Your task to perform on an android device: add a contact in the contacts app Image 0: 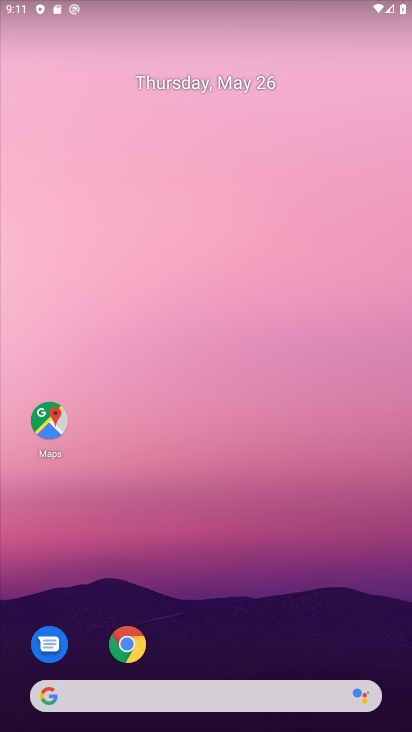
Step 0: drag from (217, 637) to (284, 317)
Your task to perform on an android device: add a contact in the contacts app Image 1: 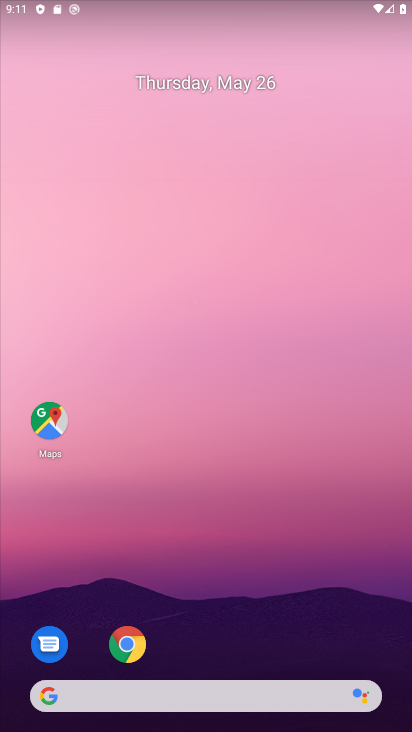
Step 1: drag from (206, 593) to (245, 287)
Your task to perform on an android device: add a contact in the contacts app Image 2: 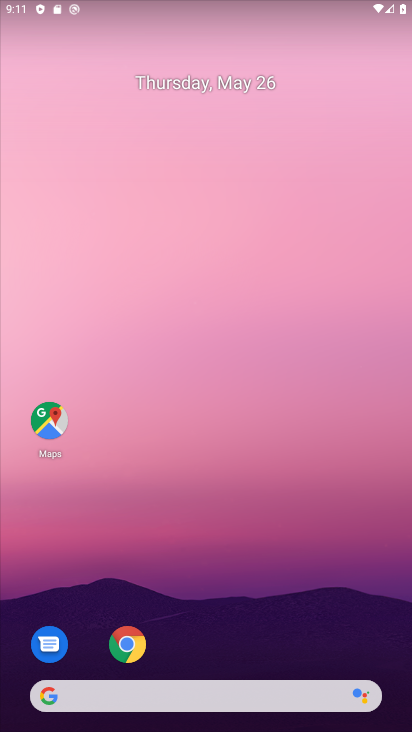
Step 2: drag from (173, 573) to (227, 155)
Your task to perform on an android device: add a contact in the contacts app Image 3: 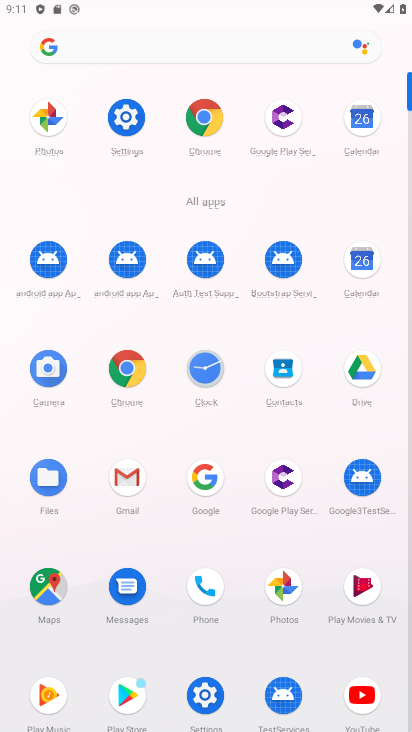
Step 3: click (286, 367)
Your task to perform on an android device: add a contact in the contacts app Image 4: 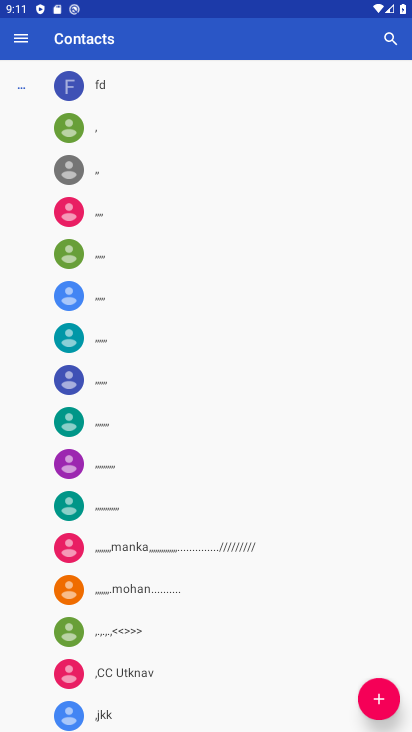
Step 4: click (375, 697)
Your task to perform on an android device: add a contact in the contacts app Image 5: 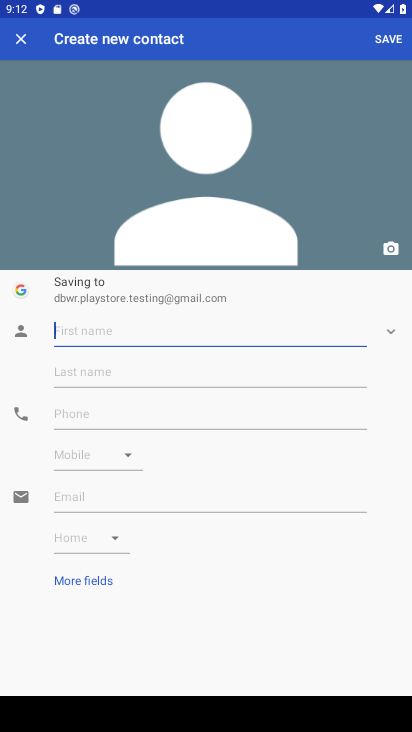
Step 5: click (80, 331)
Your task to perform on an android device: add a contact in the contacts app Image 6: 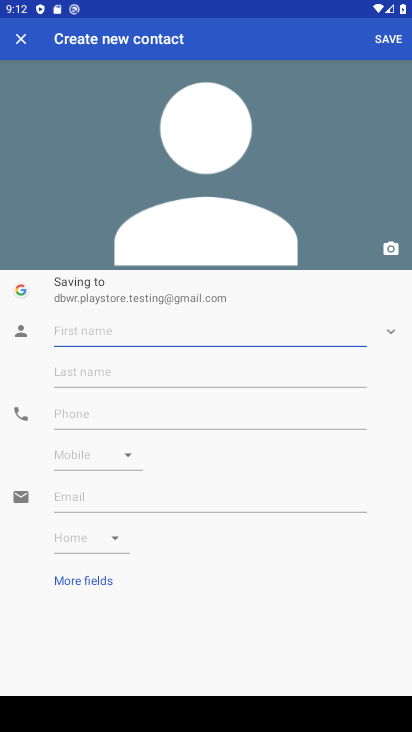
Step 6: type "gjymgb"
Your task to perform on an android device: add a contact in the contacts app Image 7: 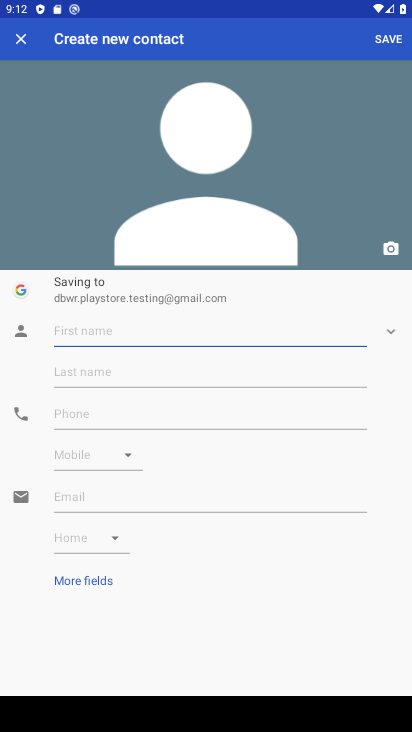
Step 7: click (135, 366)
Your task to perform on an android device: add a contact in the contacts app Image 8: 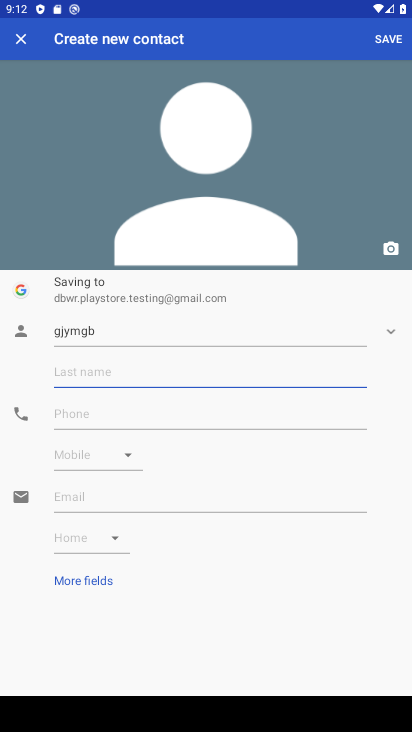
Step 8: type "gdbfd"
Your task to perform on an android device: add a contact in the contacts app Image 9: 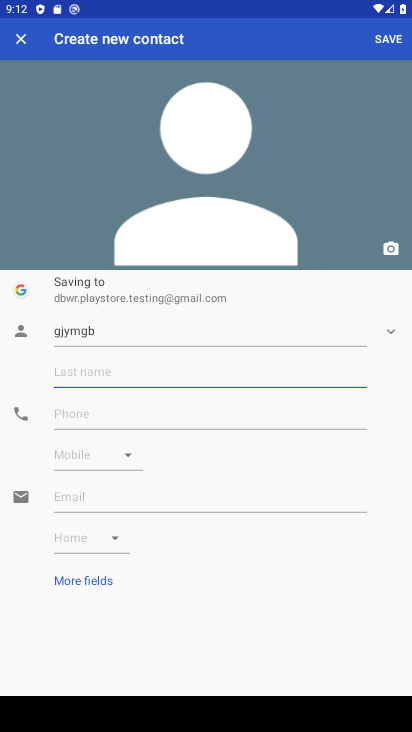
Step 9: click (105, 416)
Your task to perform on an android device: add a contact in the contacts app Image 10: 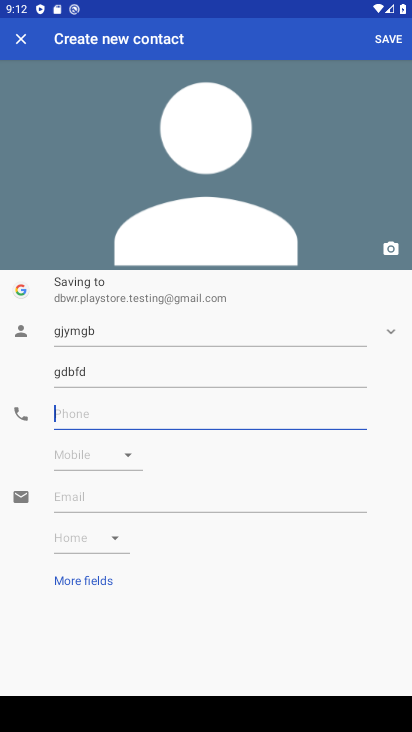
Step 10: type "4363464"
Your task to perform on an android device: add a contact in the contacts app Image 11: 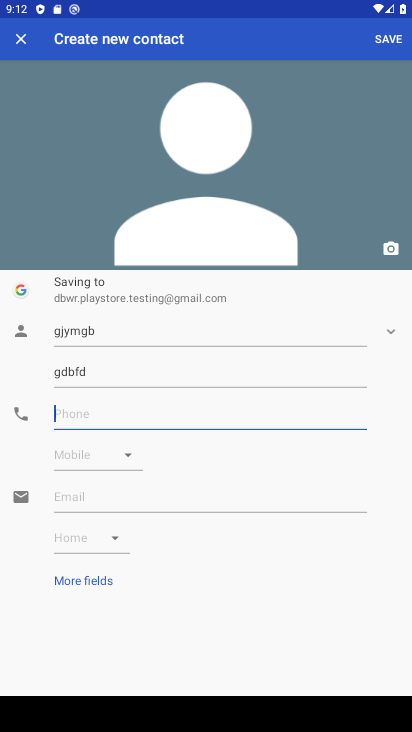
Step 11: click (92, 464)
Your task to perform on an android device: add a contact in the contacts app Image 12: 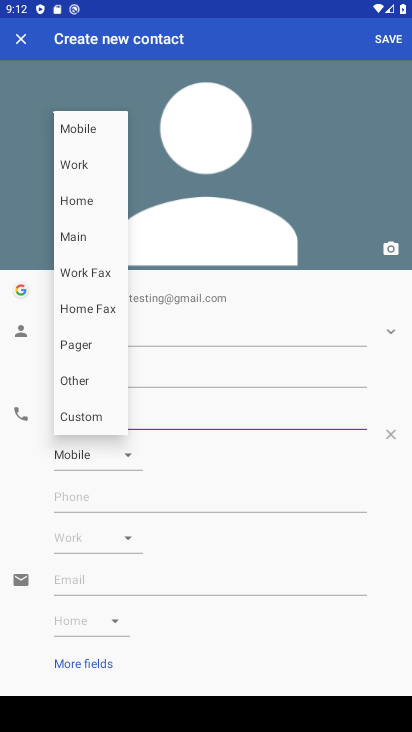
Step 12: click (392, 44)
Your task to perform on an android device: add a contact in the contacts app Image 13: 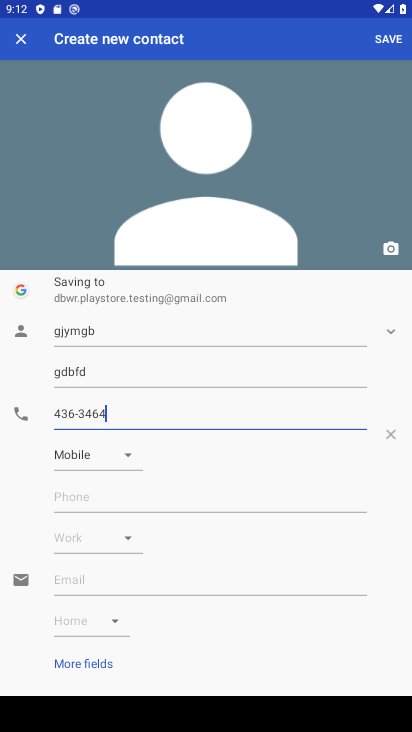
Step 13: click (389, 38)
Your task to perform on an android device: add a contact in the contacts app Image 14: 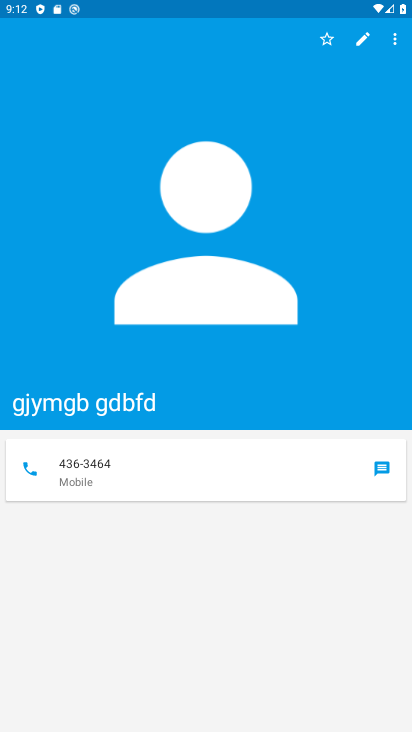
Step 14: task complete